Your task to perform on an android device: turn on bluetooth scan Image 0: 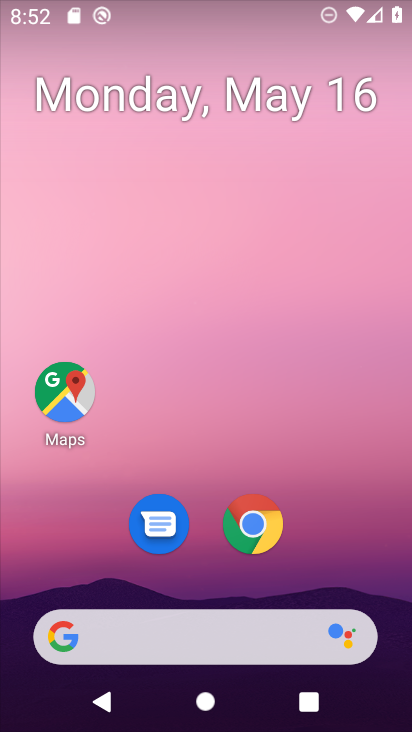
Step 0: drag from (317, 529) to (305, 71)
Your task to perform on an android device: turn on bluetooth scan Image 1: 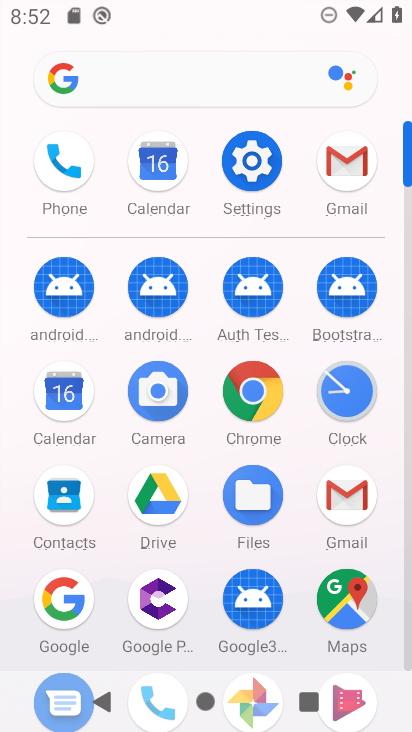
Step 1: click (254, 146)
Your task to perform on an android device: turn on bluetooth scan Image 2: 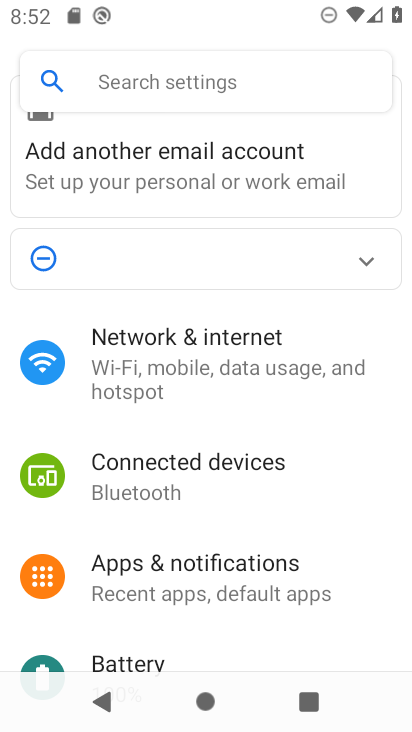
Step 2: drag from (213, 635) to (183, 169)
Your task to perform on an android device: turn on bluetooth scan Image 3: 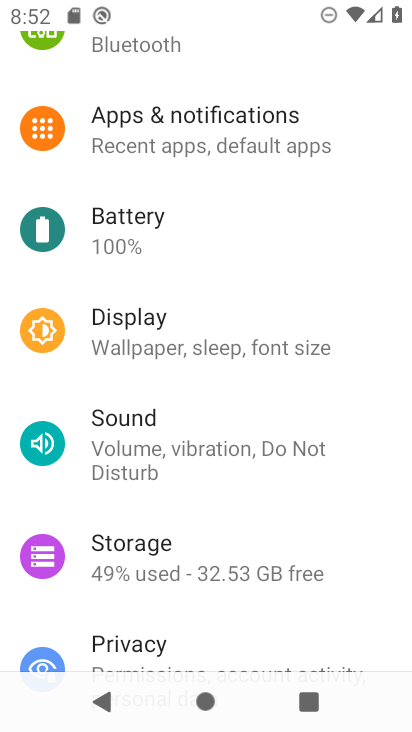
Step 3: drag from (190, 512) to (210, 155)
Your task to perform on an android device: turn on bluetooth scan Image 4: 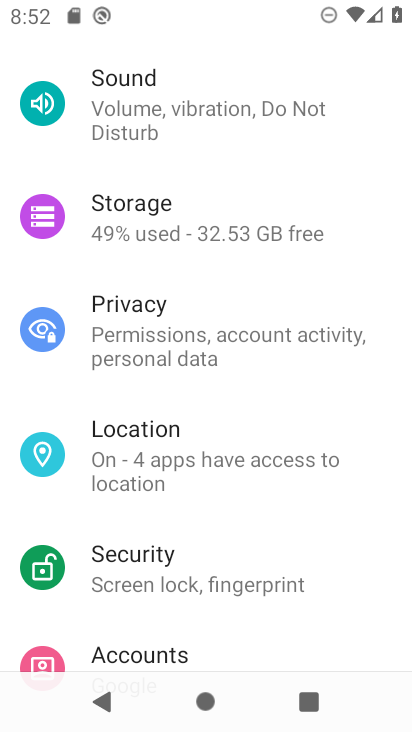
Step 4: click (179, 444)
Your task to perform on an android device: turn on bluetooth scan Image 5: 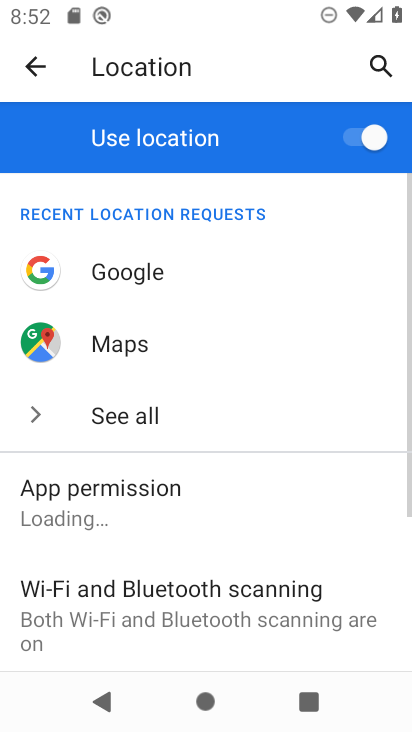
Step 5: drag from (244, 563) to (254, 416)
Your task to perform on an android device: turn on bluetooth scan Image 6: 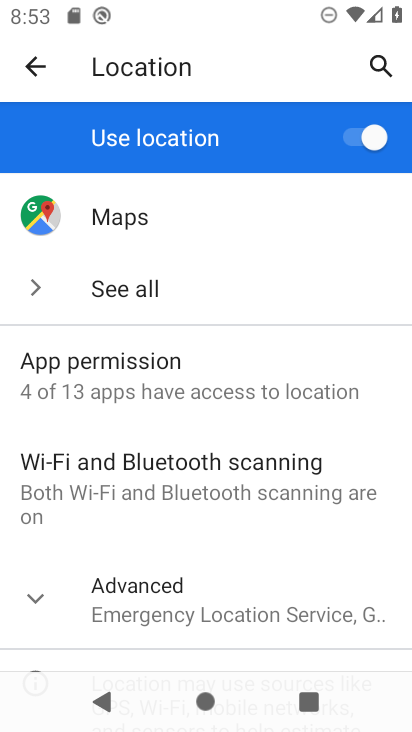
Step 6: click (252, 478)
Your task to perform on an android device: turn on bluetooth scan Image 7: 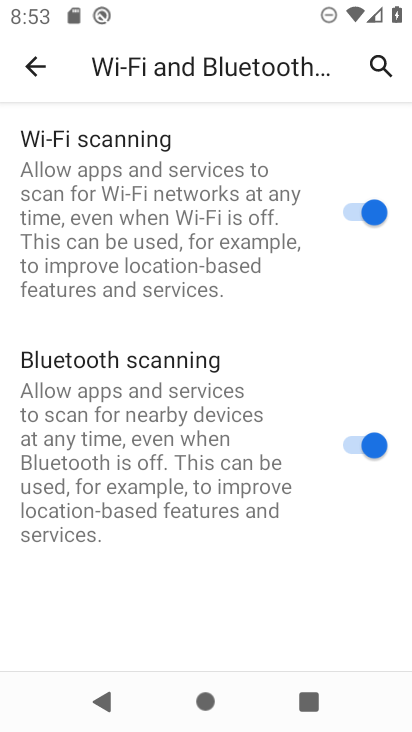
Step 7: task complete